Your task to perform on an android device: Set the phone to "Do not disturb". Image 0: 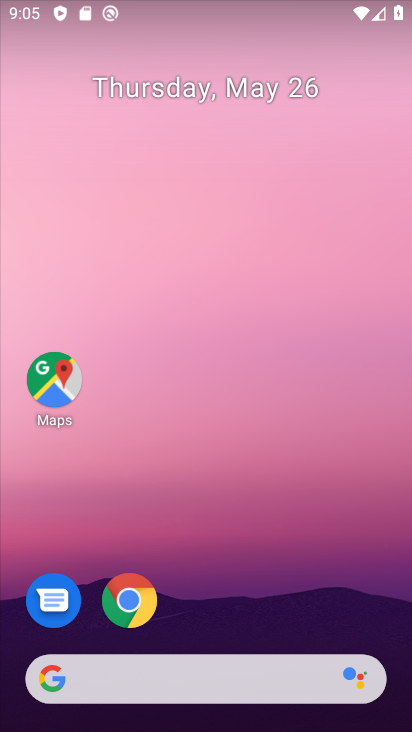
Step 0: drag from (127, 653) to (198, 158)
Your task to perform on an android device: Set the phone to "Do not disturb". Image 1: 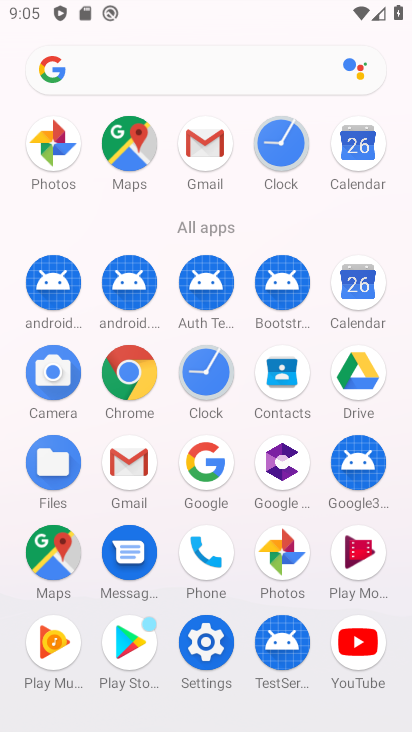
Step 1: click (140, 640)
Your task to perform on an android device: Set the phone to "Do not disturb". Image 2: 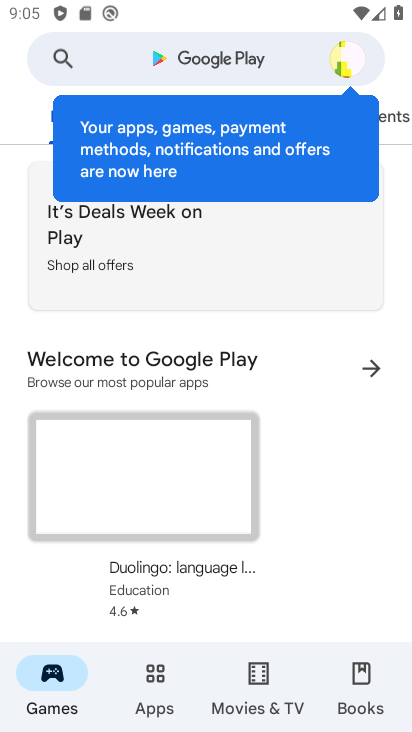
Step 2: press back button
Your task to perform on an android device: Set the phone to "Do not disturb". Image 3: 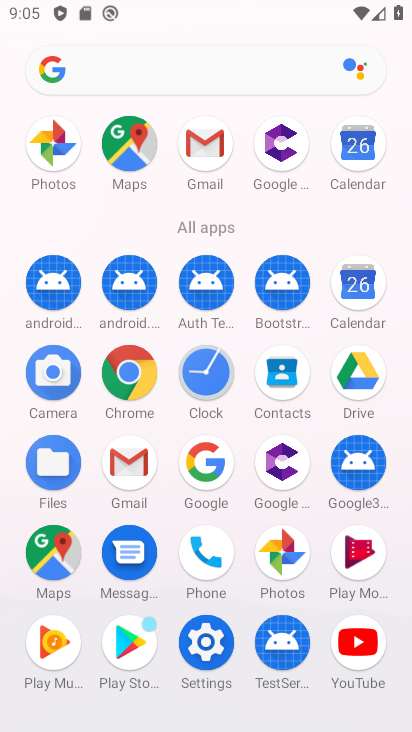
Step 3: click (204, 646)
Your task to perform on an android device: Set the phone to "Do not disturb". Image 4: 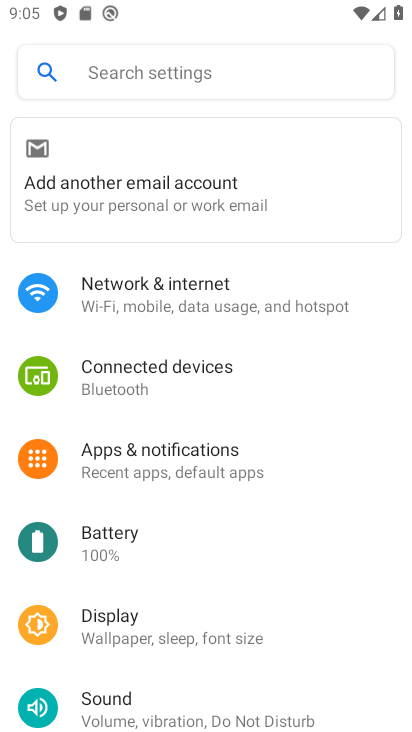
Step 4: drag from (185, 708) to (228, 350)
Your task to perform on an android device: Set the phone to "Do not disturb". Image 5: 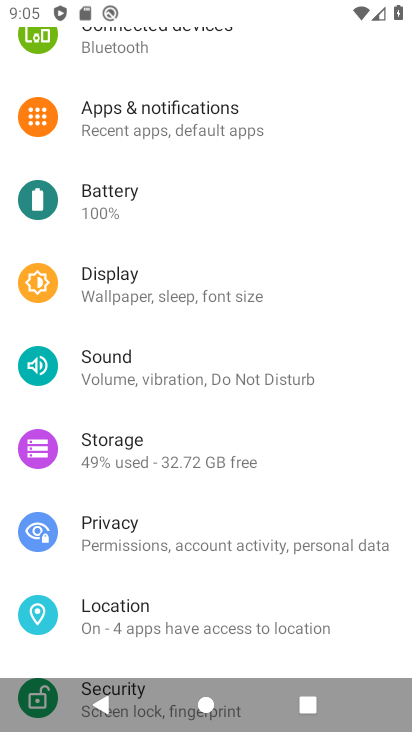
Step 5: click (166, 370)
Your task to perform on an android device: Set the phone to "Do not disturb". Image 6: 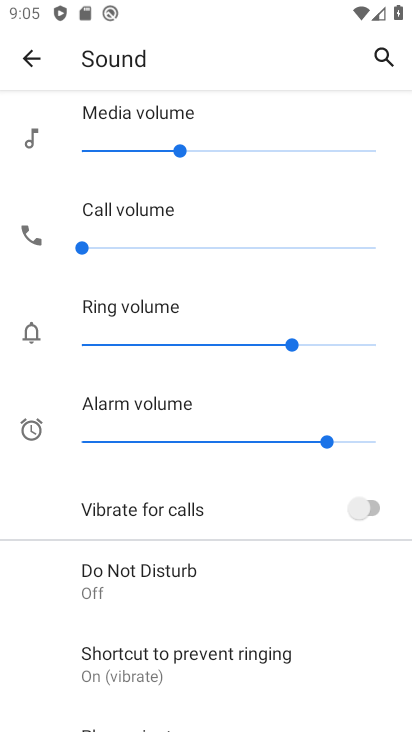
Step 6: click (143, 576)
Your task to perform on an android device: Set the phone to "Do not disturb". Image 7: 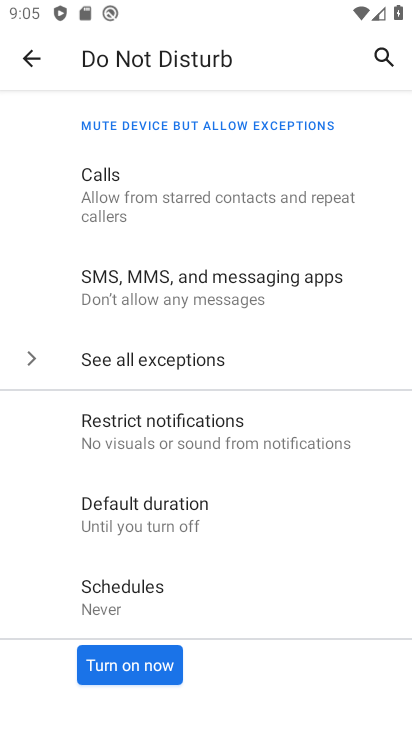
Step 7: click (149, 674)
Your task to perform on an android device: Set the phone to "Do not disturb". Image 8: 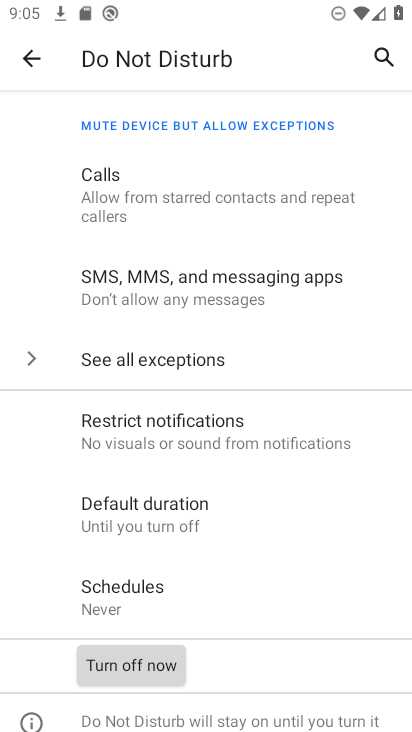
Step 8: task complete